Your task to perform on an android device: change timer sound Image 0: 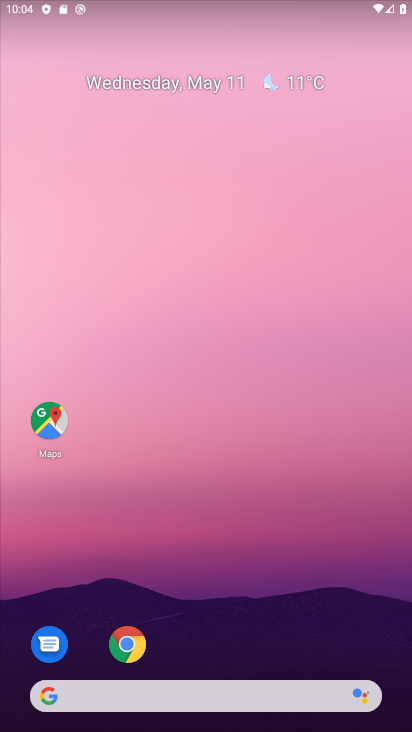
Step 0: drag from (307, 541) to (260, 15)
Your task to perform on an android device: change timer sound Image 1: 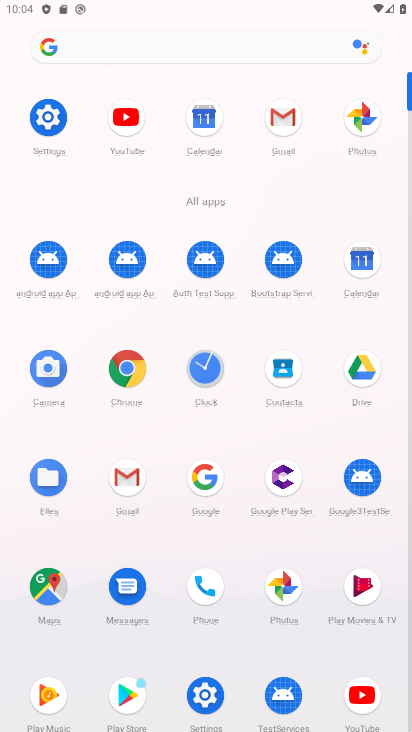
Step 1: click (203, 370)
Your task to perform on an android device: change timer sound Image 2: 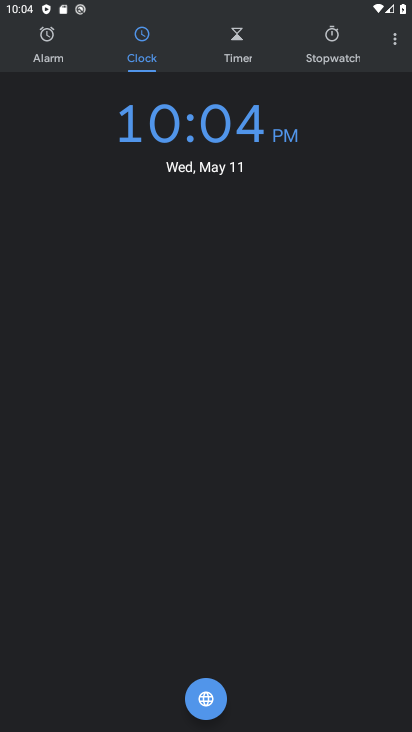
Step 2: click (392, 47)
Your task to perform on an android device: change timer sound Image 3: 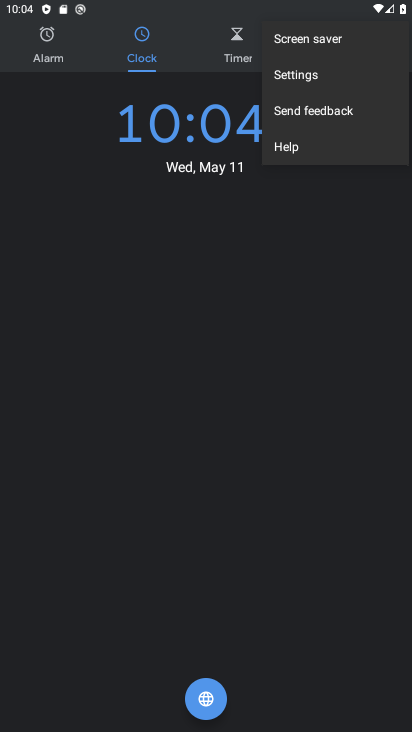
Step 3: click (300, 76)
Your task to perform on an android device: change timer sound Image 4: 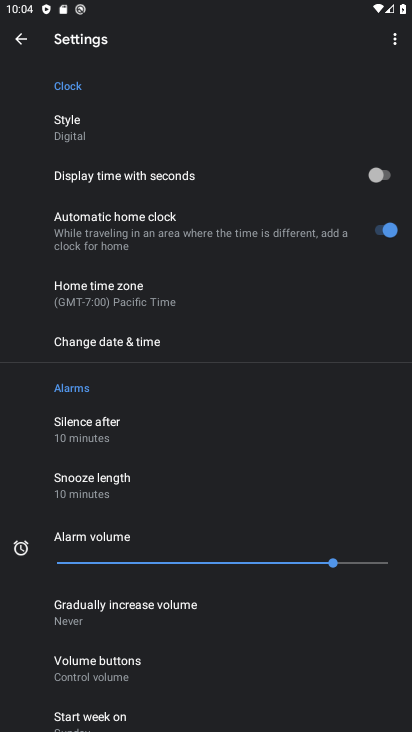
Step 4: drag from (183, 620) to (176, 296)
Your task to perform on an android device: change timer sound Image 5: 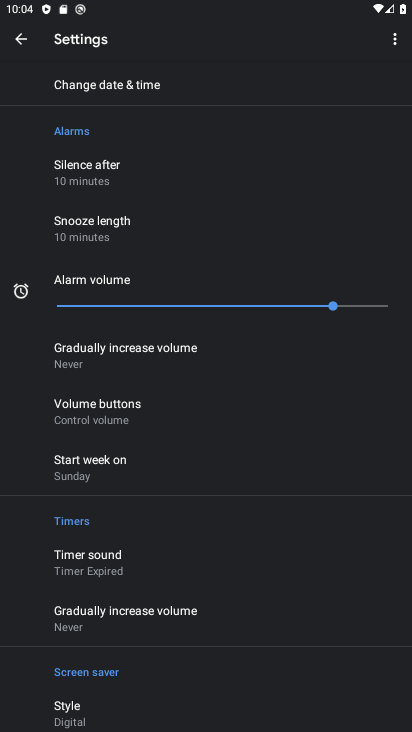
Step 5: drag from (200, 565) to (188, 258)
Your task to perform on an android device: change timer sound Image 6: 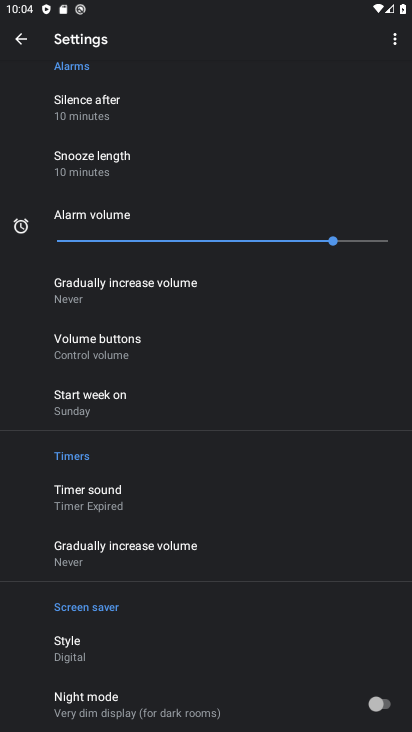
Step 6: click (73, 509)
Your task to perform on an android device: change timer sound Image 7: 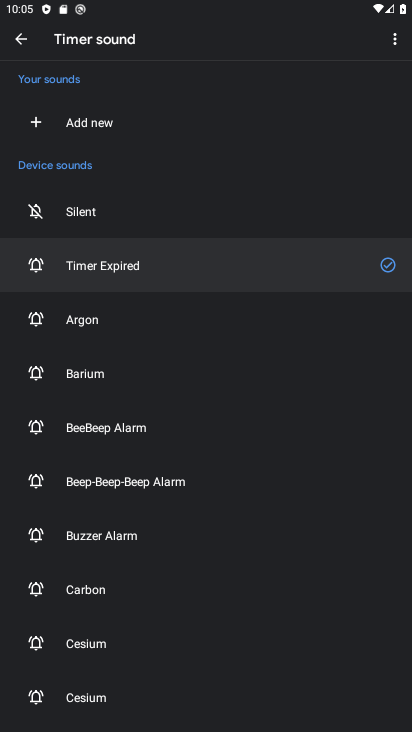
Step 7: click (89, 334)
Your task to perform on an android device: change timer sound Image 8: 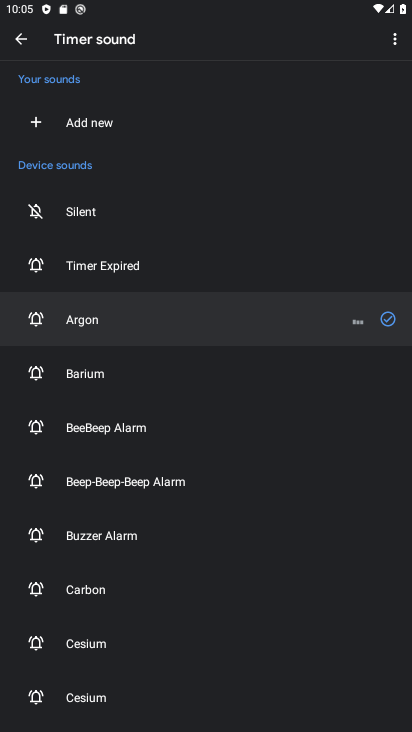
Step 8: task complete